Your task to perform on an android device: find snoozed emails in the gmail app Image 0: 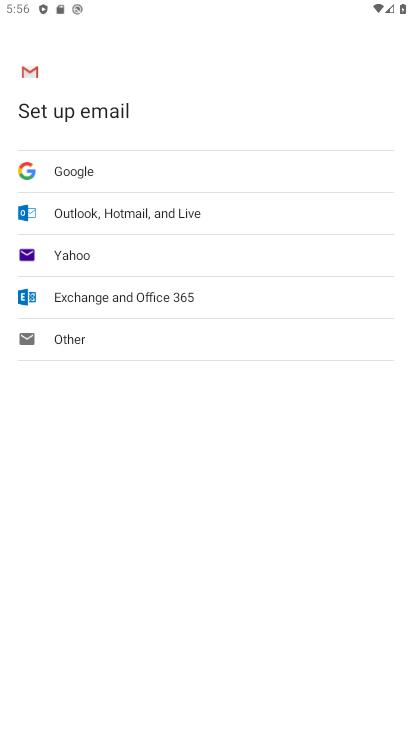
Step 0: press home button
Your task to perform on an android device: find snoozed emails in the gmail app Image 1: 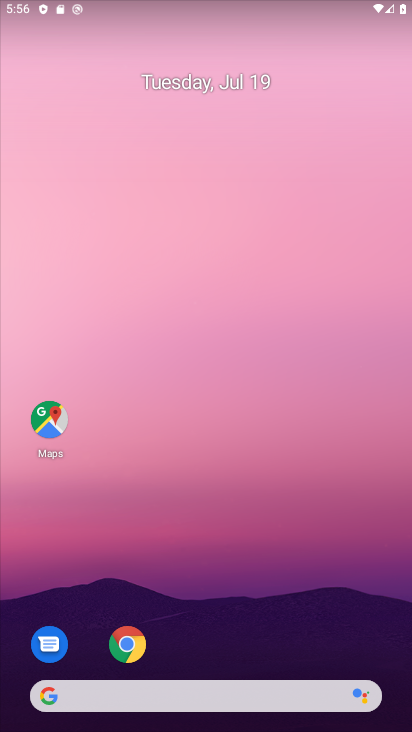
Step 1: drag from (223, 548) to (264, 234)
Your task to perform on an android device: find snoozed emails in the gmail app Image 2: 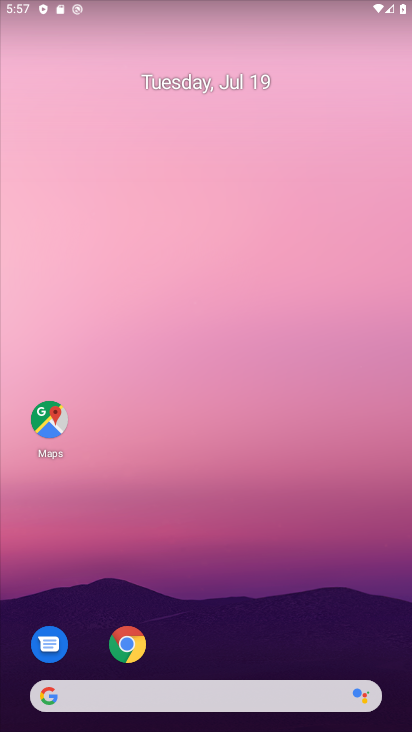
Step 2: drag from (256, 589) to (334, 140)
Your task to perform on an android device: find snoozed emails in the gmail app Image 3: 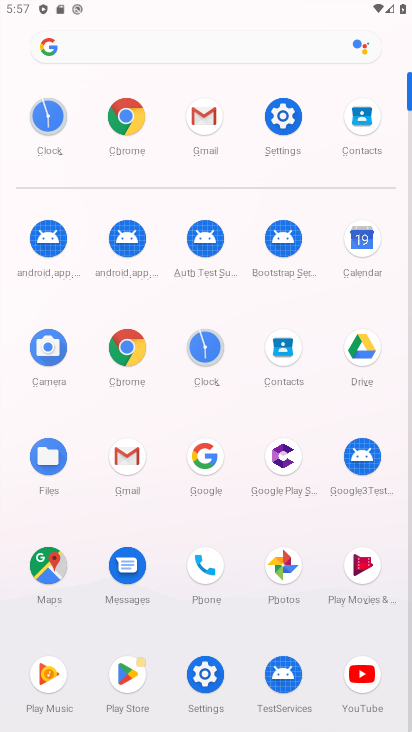
Step 3: click (118, 461)
Your task to perform on an android device: find snoozed emails in the gmail app Image 4: 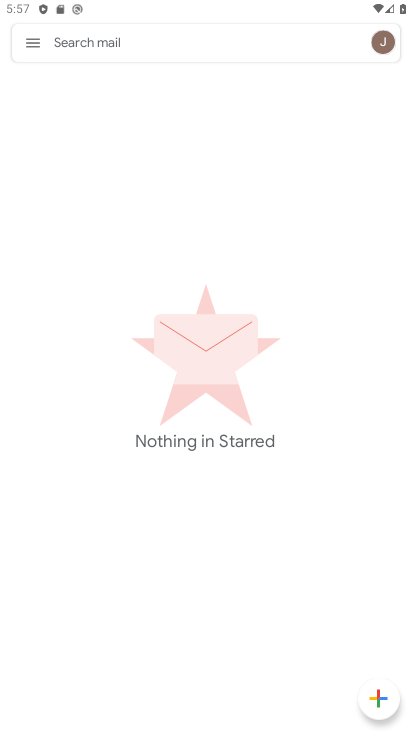
Step 4: click (34, 41)
Your task to perform on an android device: find snoozed emails in the gmail app Image 5: 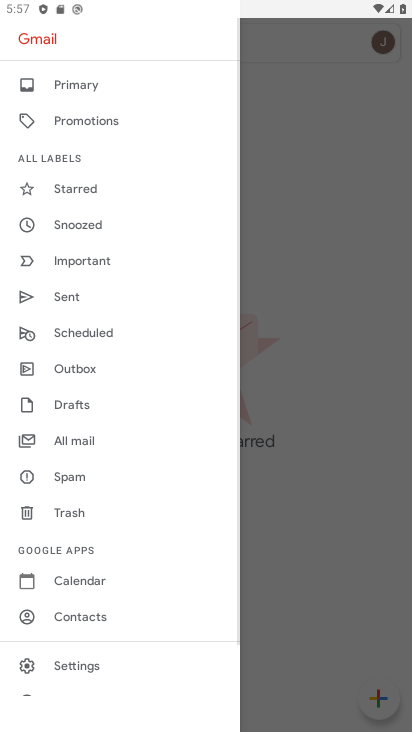
Step 5: click (71, 227)
Your task to perform on an android device: find snoozed emails in the gmail app Image 6: 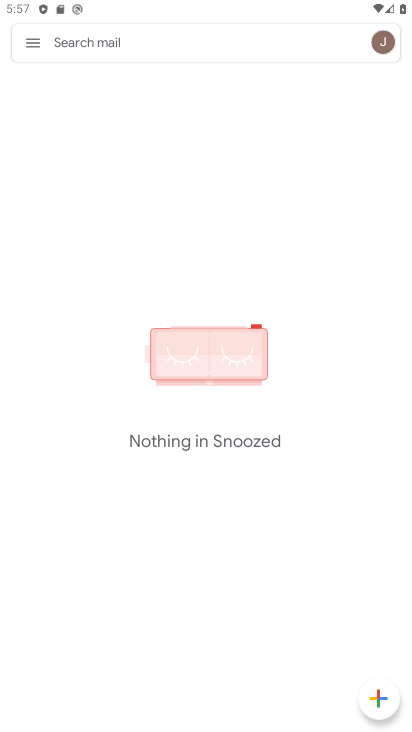
Step 6: task complete